Your task to perform on an android device: toggle sleep mode Image 0: 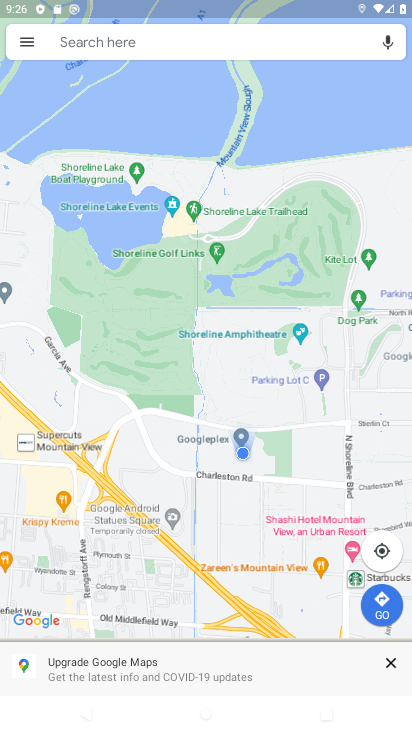
Step 0: press back button
Your task to perform on an android device: toggle sleep mode Image 1: 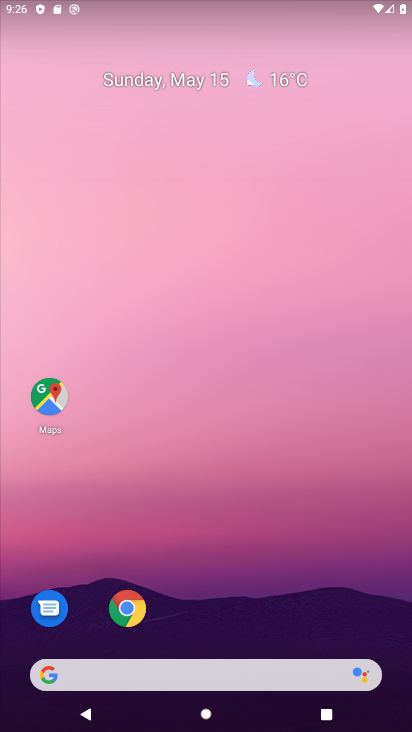
Step 1: drag from (339, 615) to (160, 71)
Your task to perform on an android device: toggle sleep mode Image 2: 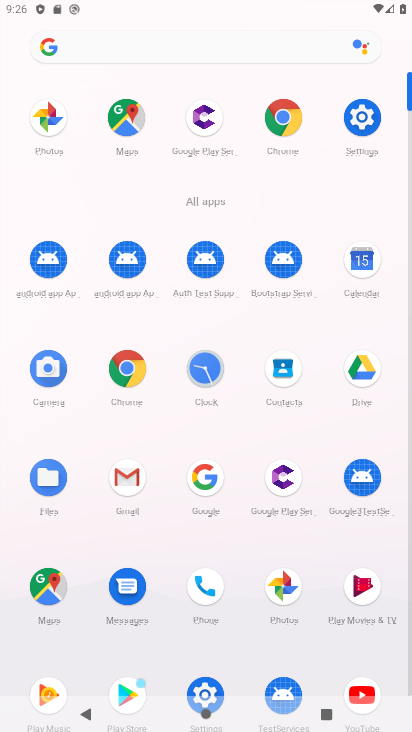
Step 2: click (363, 124)
Your task to perform on an android device: toggle sleep mode Image 3: 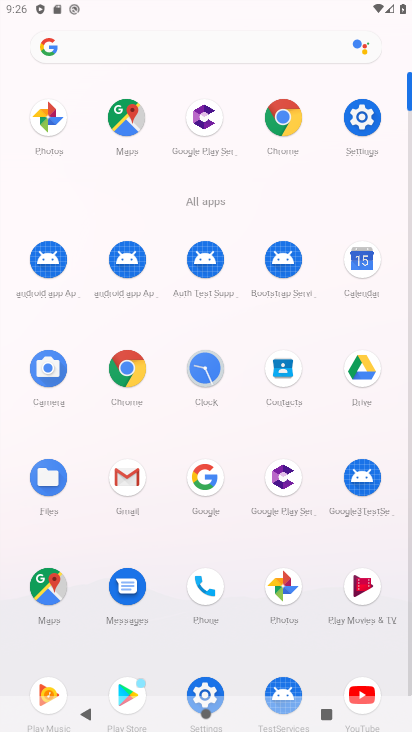
Step 3: click (364, 122)
Your task to perform on an android device: toggle sleep mode Image 4: 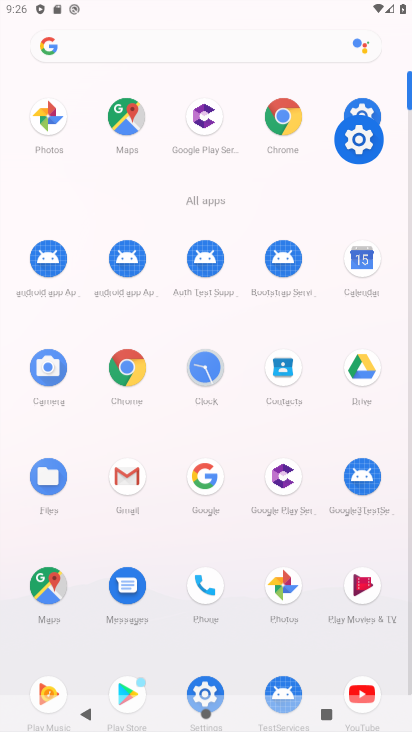
Step 4: click (365, 121)
Your task to perform on an android device: toggle sleep mode Image 5: 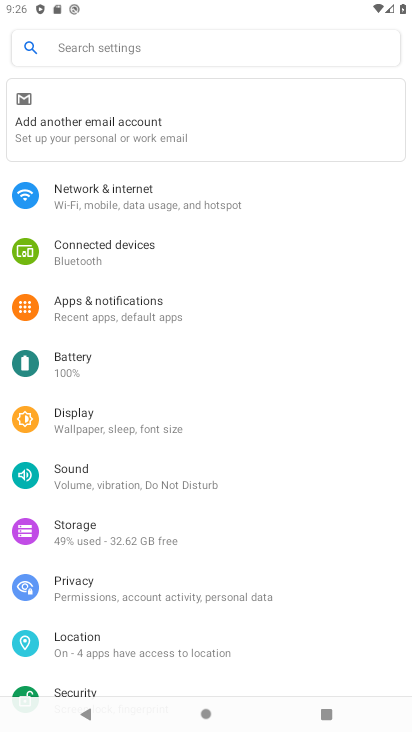
Step 5: click (118, 420)
Your task to perform on an android device: toggle sleep mode Image 6: 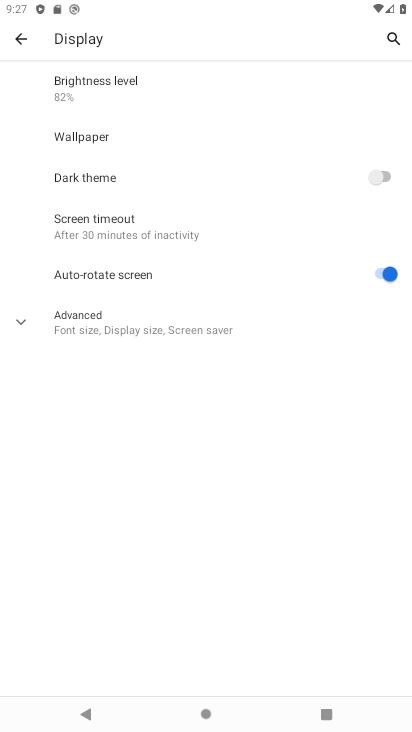
Step 6: click (109, 226)
Your task to perform on an android device: toggle sleep mode Image 7: 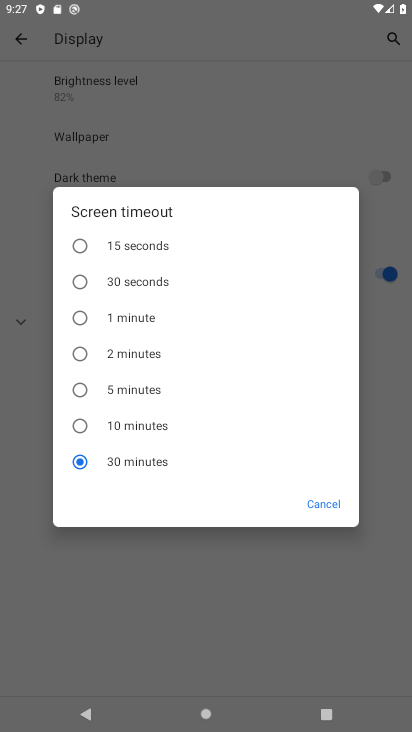
Step 7: click (77, 429)
Your task to perform on an android device: toggle sleep mode Image 8: 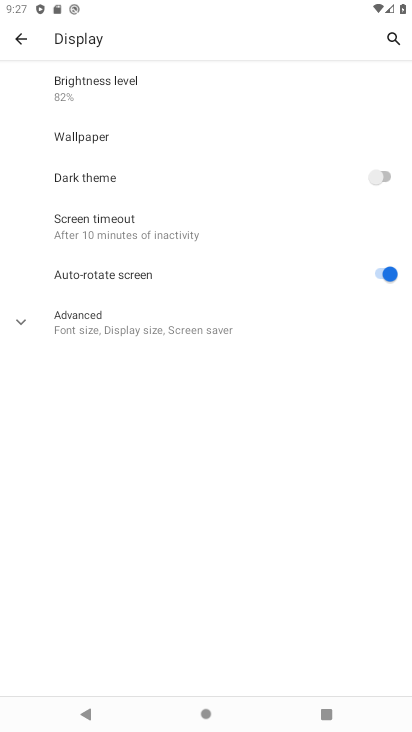
Step 8: task complete